Your task to perform on an android device: turn on showing notifications on the lock screen Image 0: 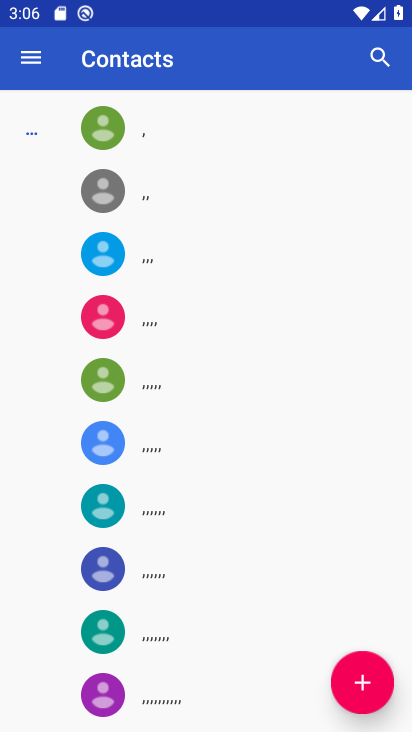
Step 0: press home button
Your task to perform on an android device: turn on showing notifications on the lock screen Image 1: 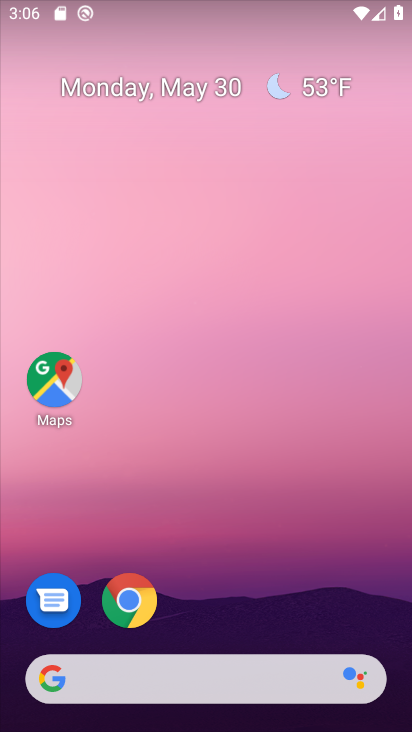
Step 1: drag from (256, 565) to (229, 124)
Your task to perform on an android device: turn on showing notifications on the lock screen Image 2: 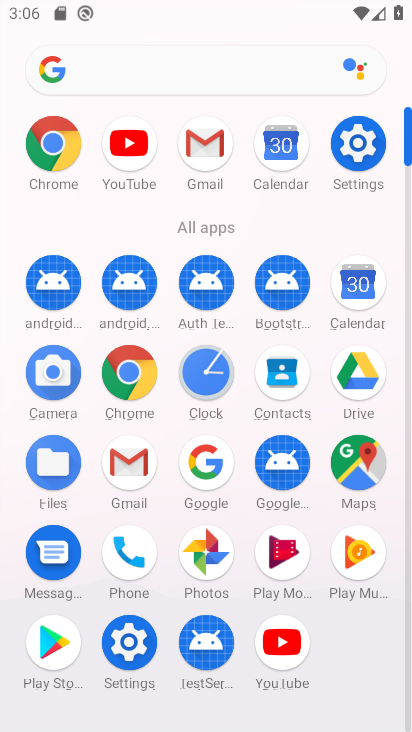
Step 2: click (342, 138)
Your task to perform on an android device: turn on showing notifications on the lock screen Image 3: 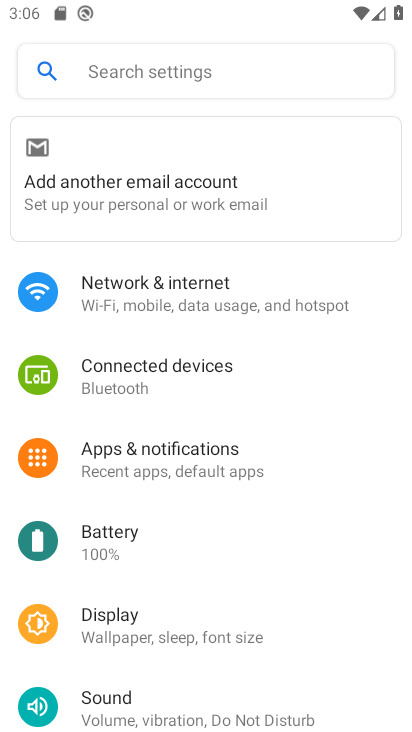
Step 3: click (188, 479)
Your task to perform on an android device: turn on showing notifications on the lock screen Image 4: 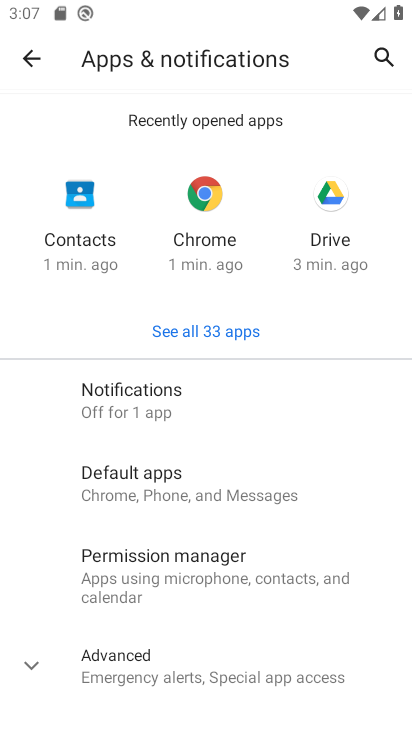
Step 4: click (123, 415)
Your task to perform on an android device: turn on showing notifications on the lock screen Image 5: 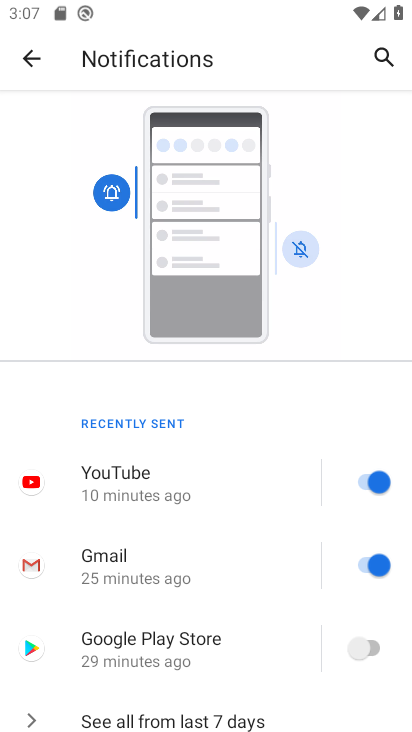
Step 5: drag from (154, 650) to (254, 258)
Your task to perform on an android device: turn on showing notifications on the lock screen Image 6: 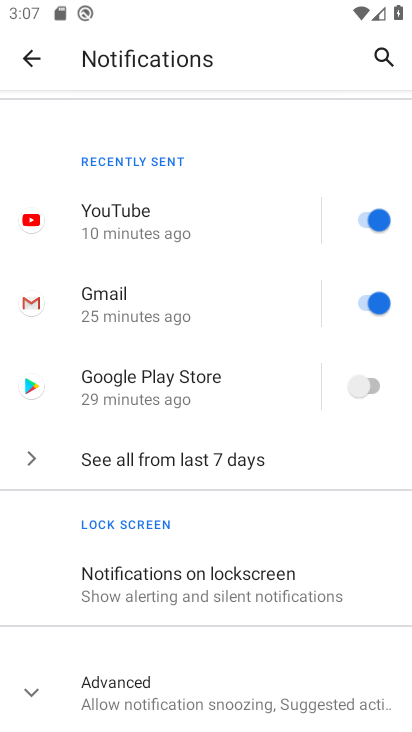
Step 6: click (132, 571)
Your task to perform on an android device: turn on showing notifications on the lock screen Image 7: 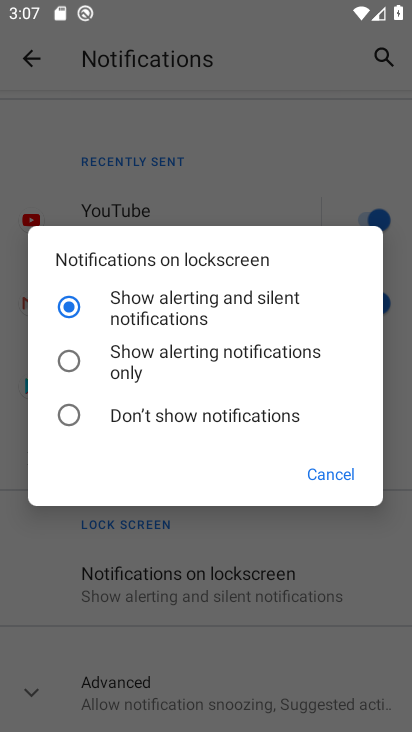
Step 7: click (57, 371)
Your task to perform on an android device: turn on showing notifications on the lock screen Image 8: 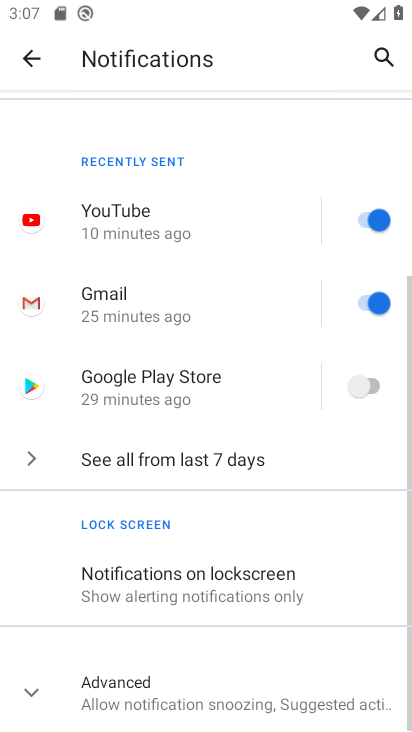
Step 8: task complete